Your task to perform on an android device: create a new album in the google photos Image 0: 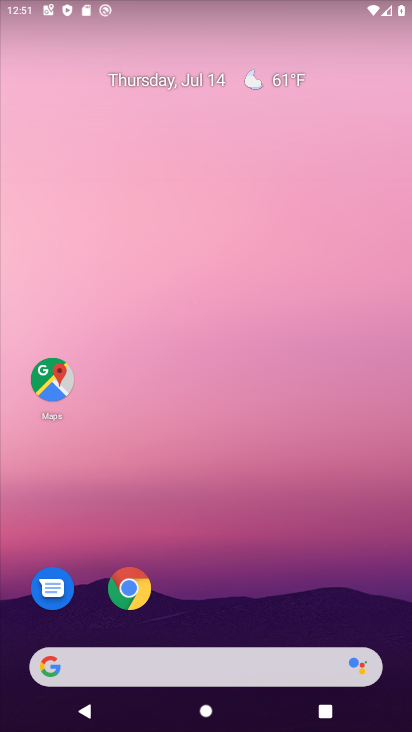
Step 0: drag from (214, 635) to (227, 364)
Your task to perform on an android device: create a new album in the google photos Image 1: 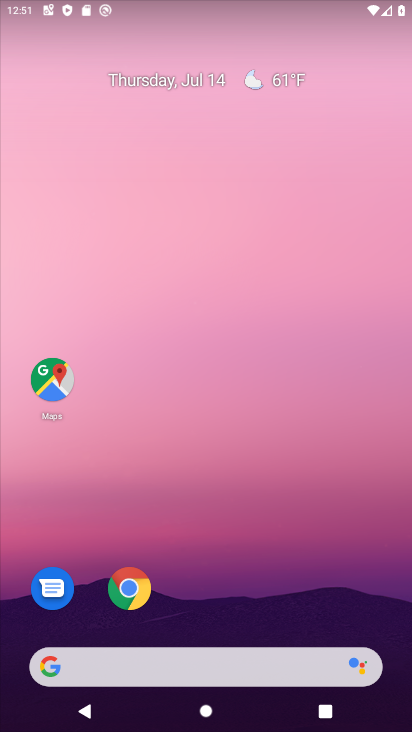
Step 1: drag from (222, 598) to (237, 266)
Your task to perform on an android device: create a new album in the google photos Image 2: 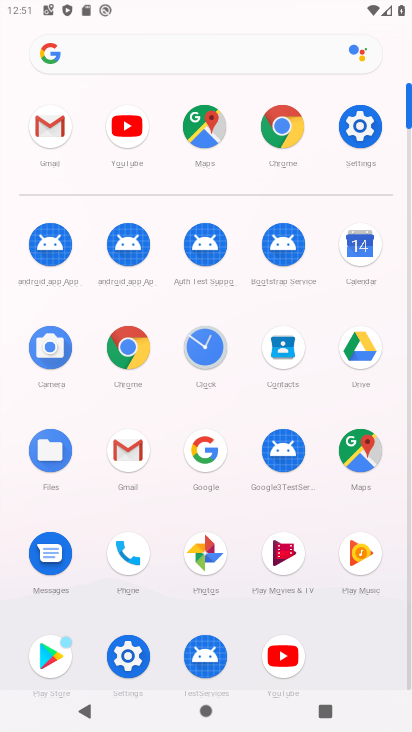
Step 2: click (196, 553)
Your task to perform on an android device: create a new album in the google photos Image 3: 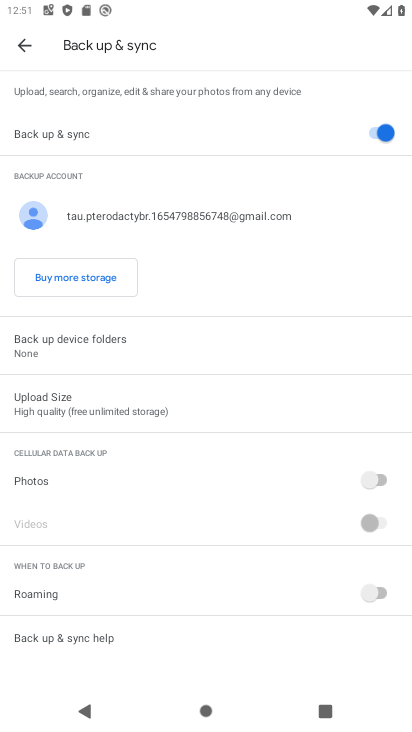
Step 3: click (22, 43)
Your task to perform on an android device: create a new album in the google photos Image 4: 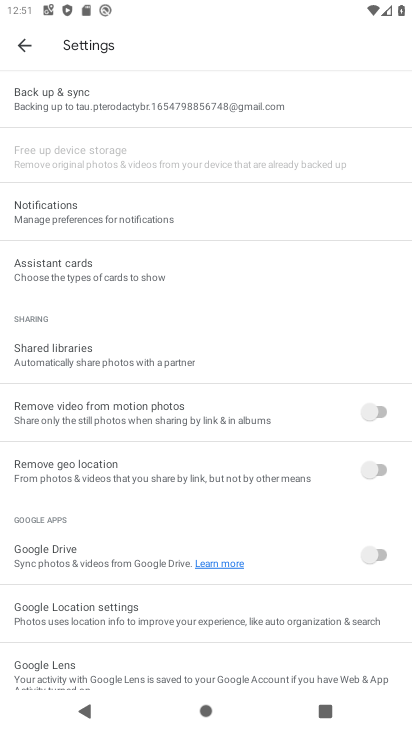
Step 4: click (14, 38)
Your task to perform on an android device: create a new album in the google photos Image 5: 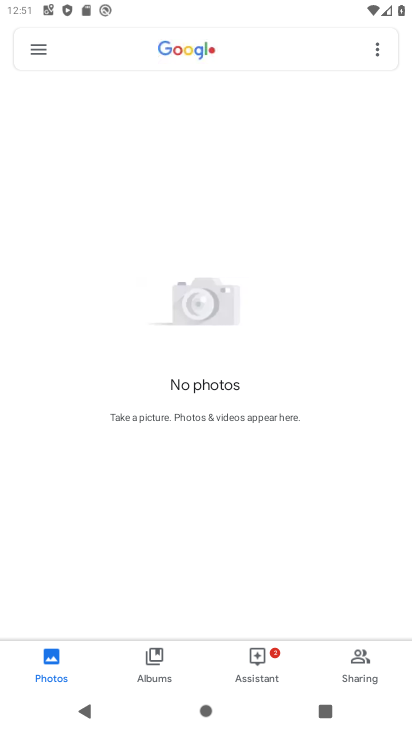
Step 5: click (144, 651)
Your task to perform on an android device: create a new album in the google photos Image 6: 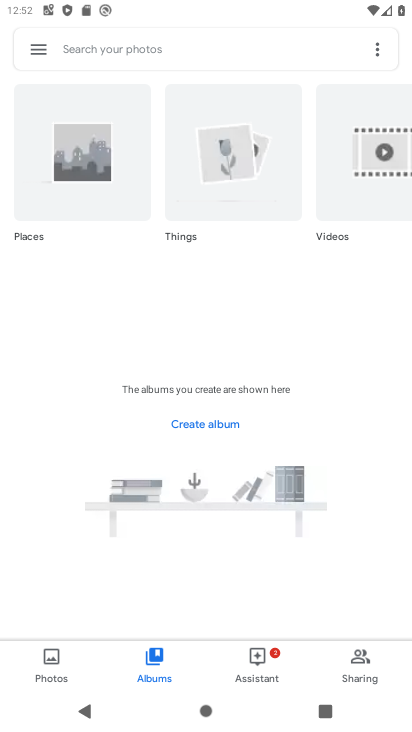
Step 6: task complete